Your task to perform on an android device: check android version Image 0: 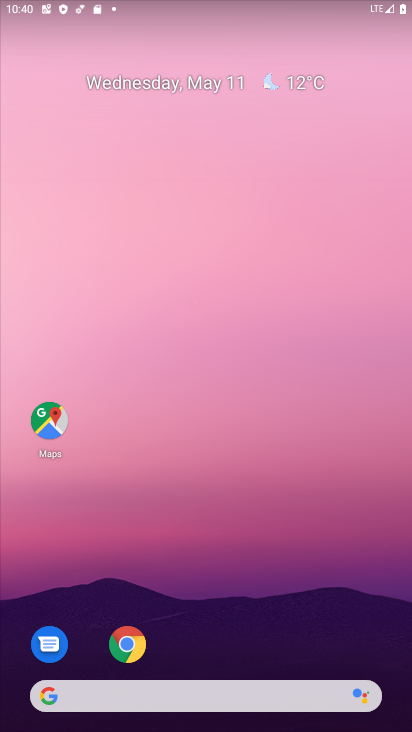
Step 0: drag from (208, 655) to (305, 1)
Your task to perform on an android device: check android version Image 1: 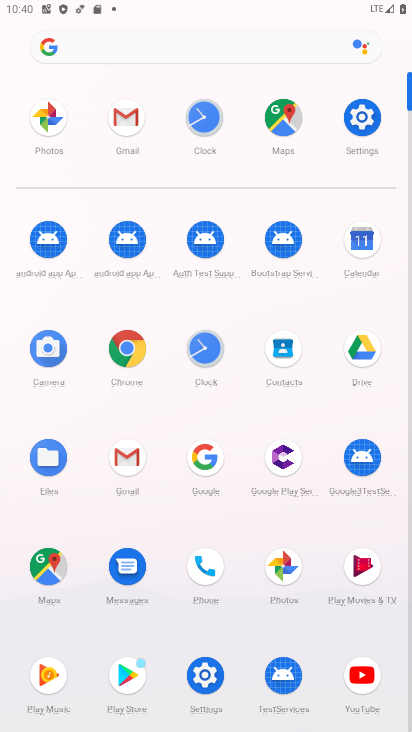
Step 1: click (202, 680)
Your task to perform on an android device: check android version Image 2: 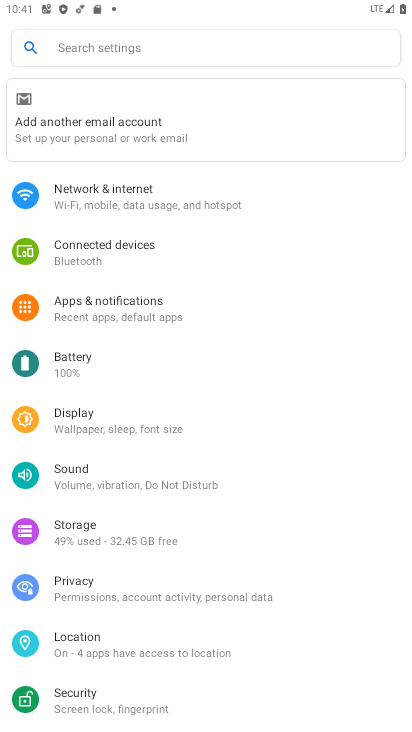
Step 2: drag from (118, 559) to (113, 371)
Your task to perform on an android device: check android version Image 3: 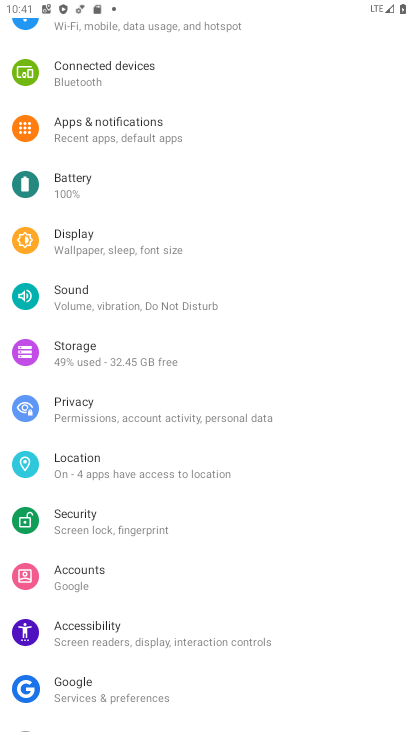
Step 3: drag from (167, 652) to (180, 335)
Your task to perform on an android device: check android version Image 4: 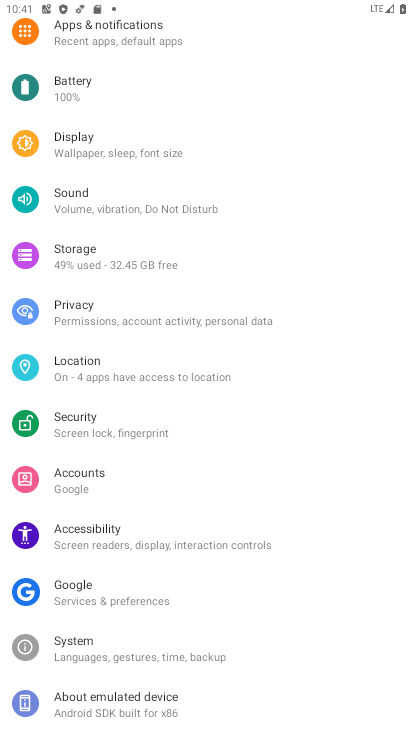
Step 4: click (186, 694)
Your task to perform on an android device: check android version Image 5: 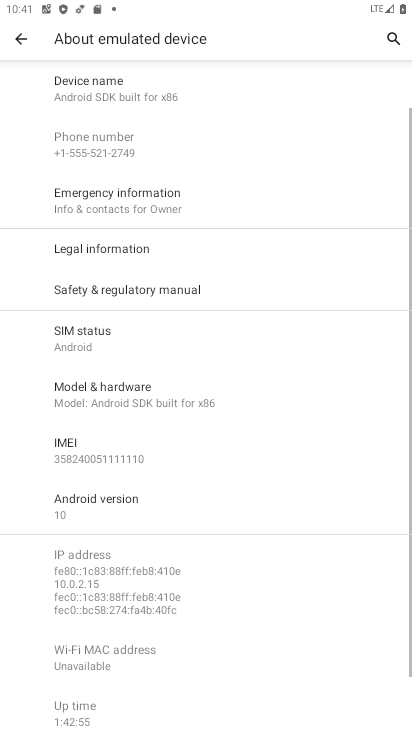
Step 5: click (149, 495)
Your task to perform on an android device: check android version Image 6: 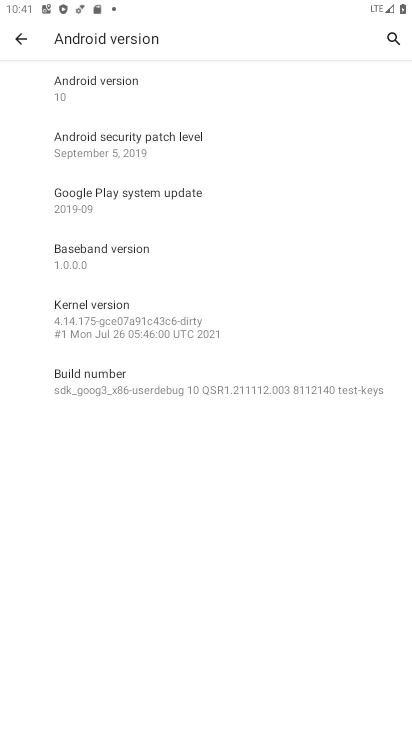
Step 6: task complete